Your task to perform on an android device: Show me the alarms in the clock app Image 0: 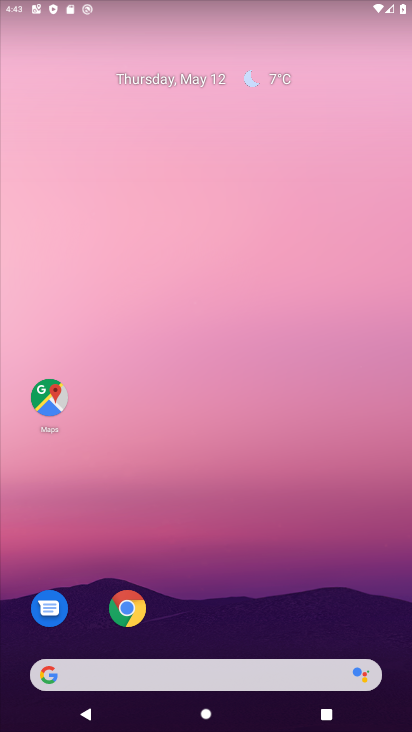
Step 0: drag from (187, 608) to (214, 74)
Your task to perform on an android device: Show me the alarms in the clock app Image 1: 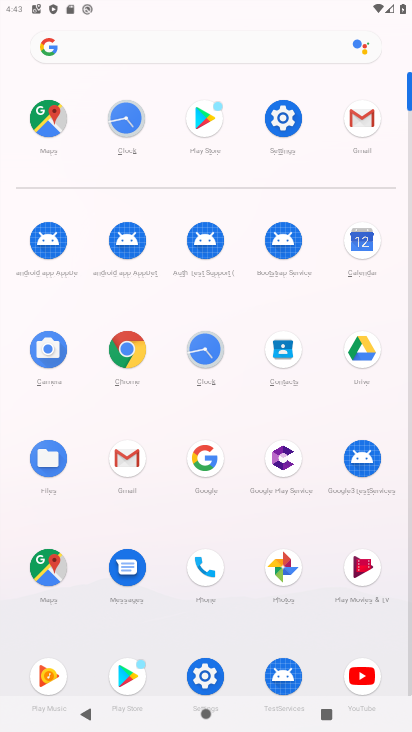
Step 1: click (124, 118)
Your task to perform on an android device: Show me the alarms in the clock app Image 2: 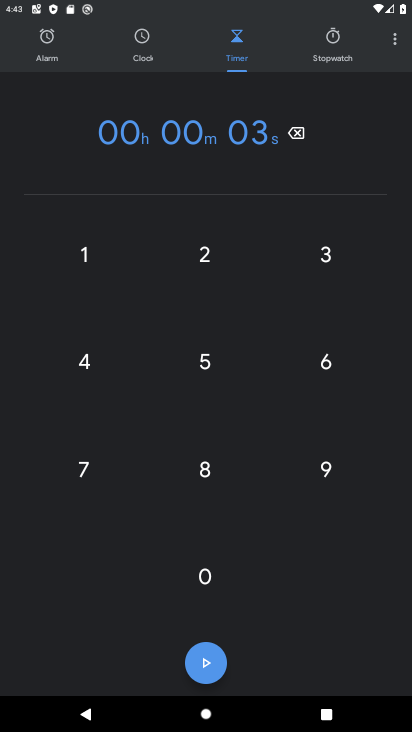
Step 2: click (70, 45)
Your task to perform on an android device: Show me the alarms in the clock app Image 3: 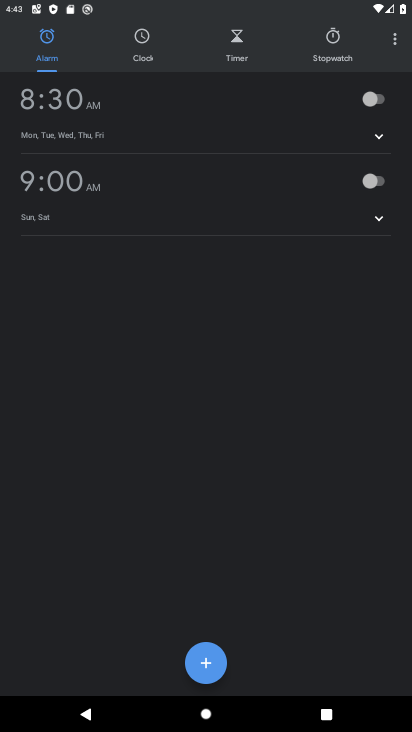
Step 3: task complete